Your task to perform on an android device: Open CNN.com Image 0: 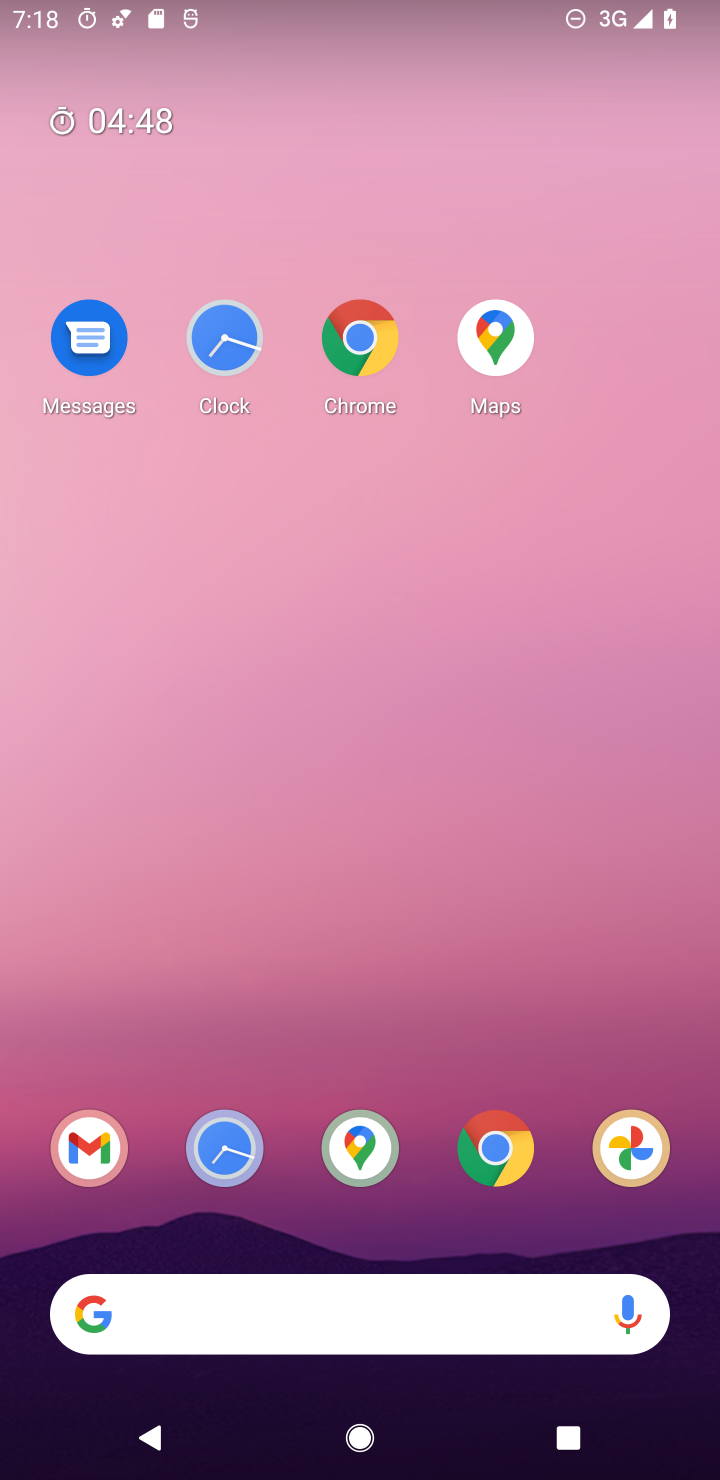
Step 0: drag from (422, 1155) to (499, 249)
Your task to perform on an android device: Open CNN.com Image 1: 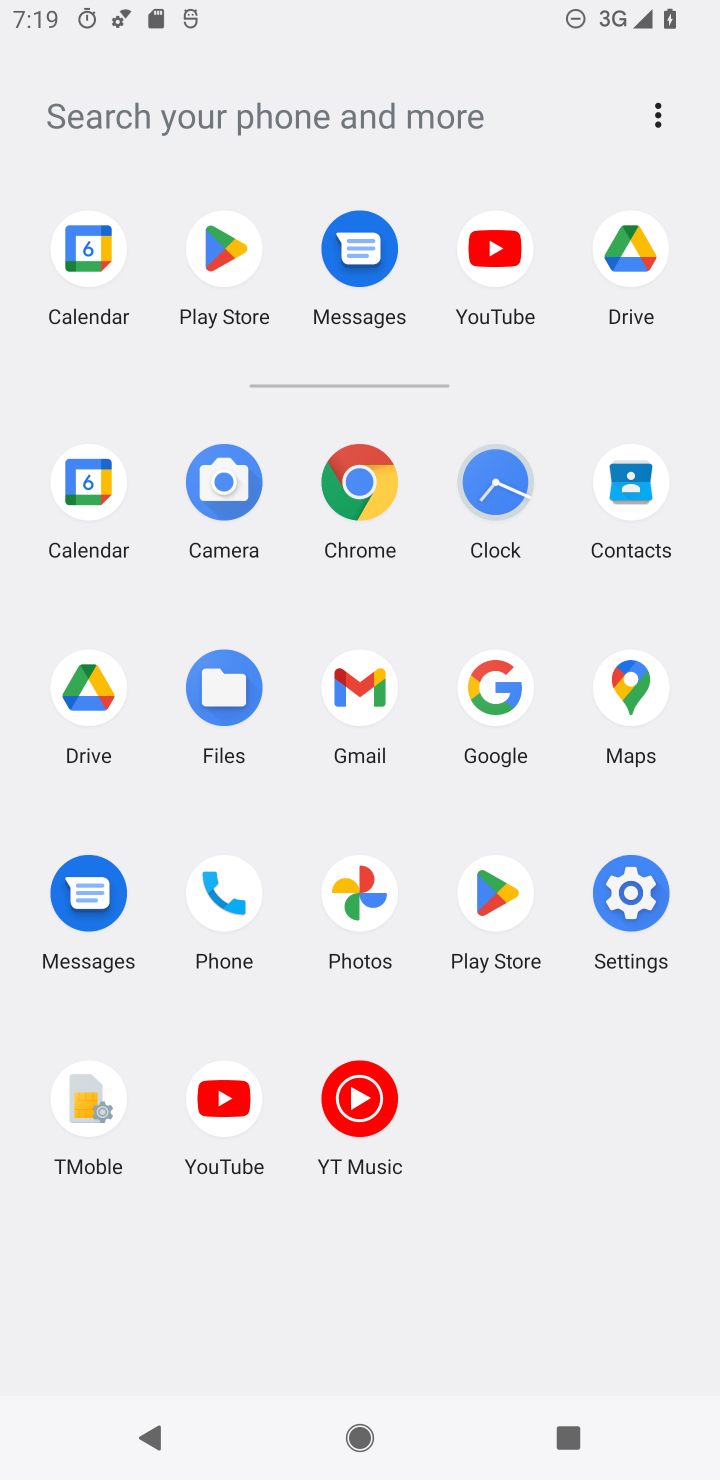
Step 1: click (350, 455)
Your task to perform on an android device: Open CNN.com Image 2: 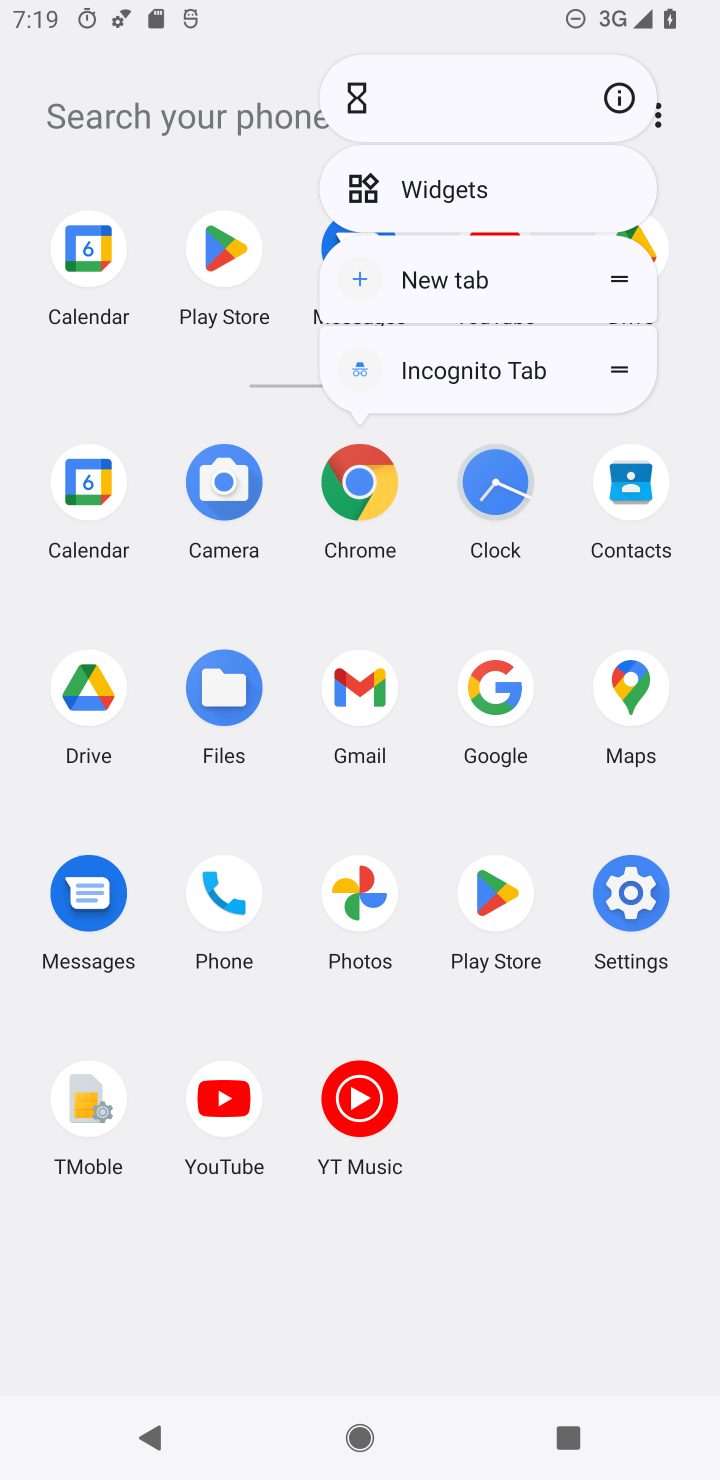
Step 2: click (372, 481)
Your task to perform on an android device: Open CNN.com Image 3: 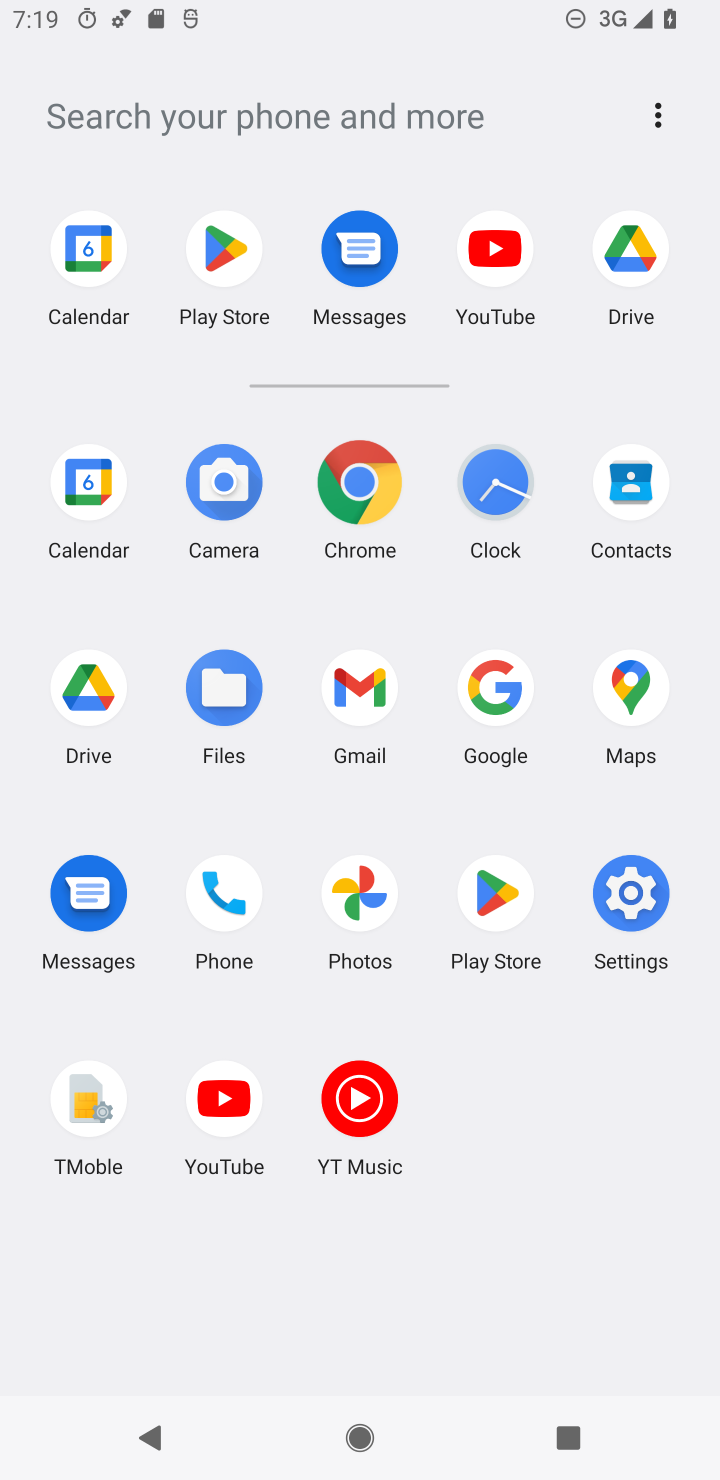
Step 3: click (372, 481)
Your task to perform on an android device: Open CNN.com Image 4: 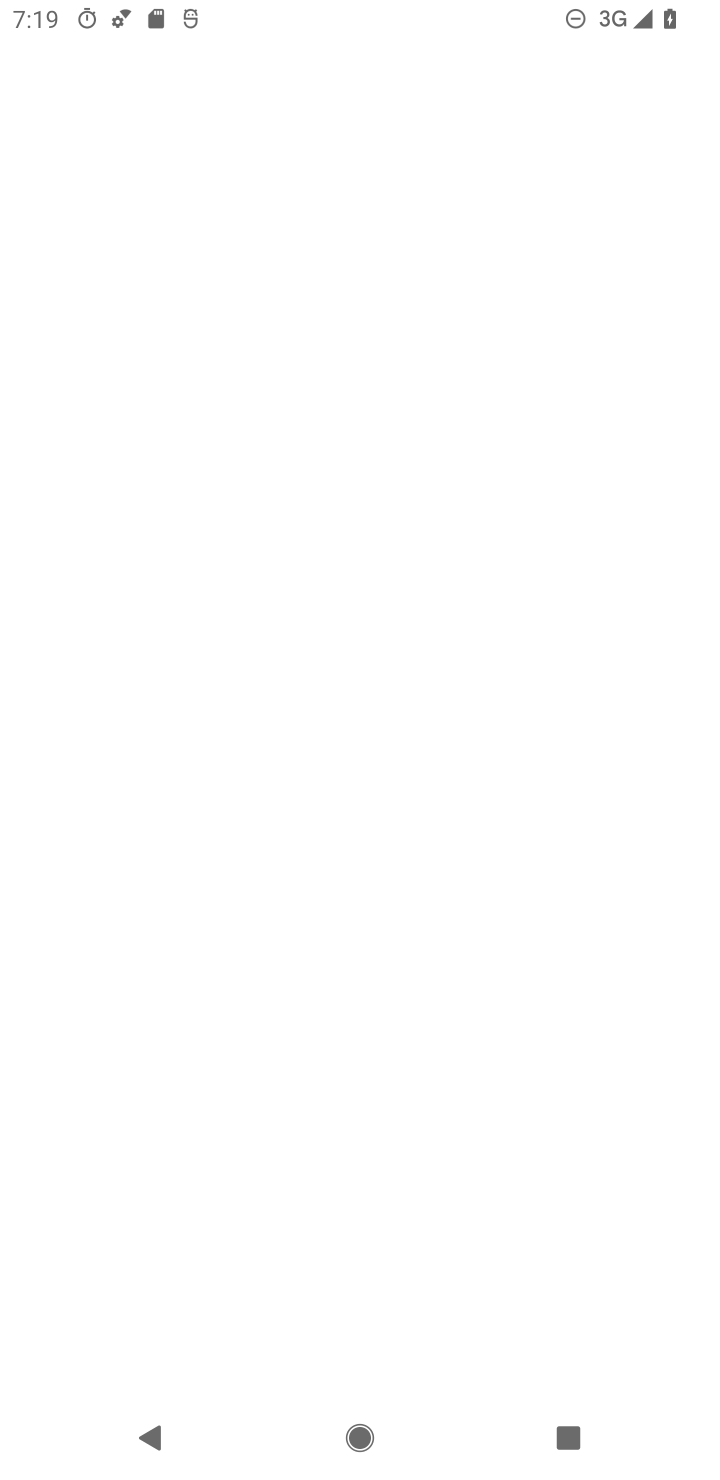
Step 4: click (372, 481)
Your task to perform on an android device: Open CNN.com Image 5: 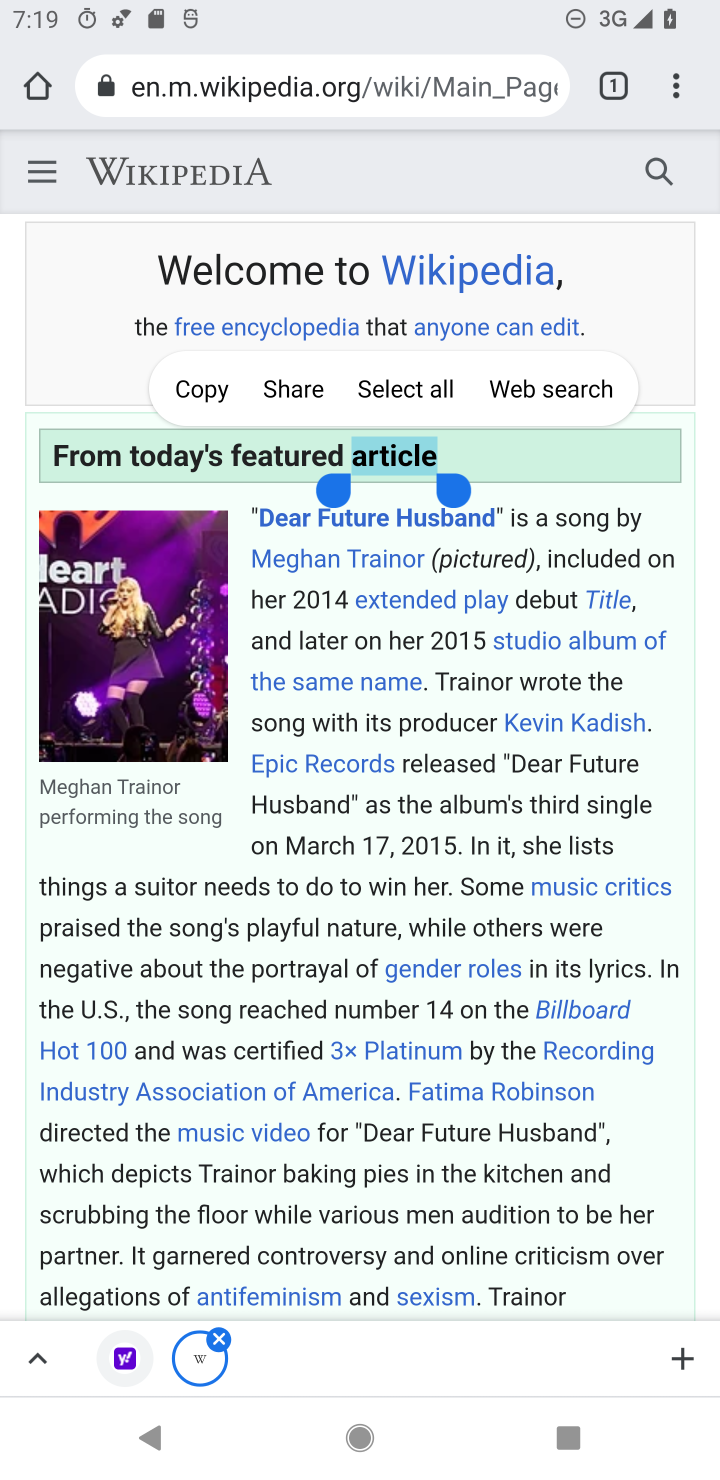
Step 5: drag from (423, 868) to (467, 422)
Your task to perform on an android device: Open CNN.com Image 6: 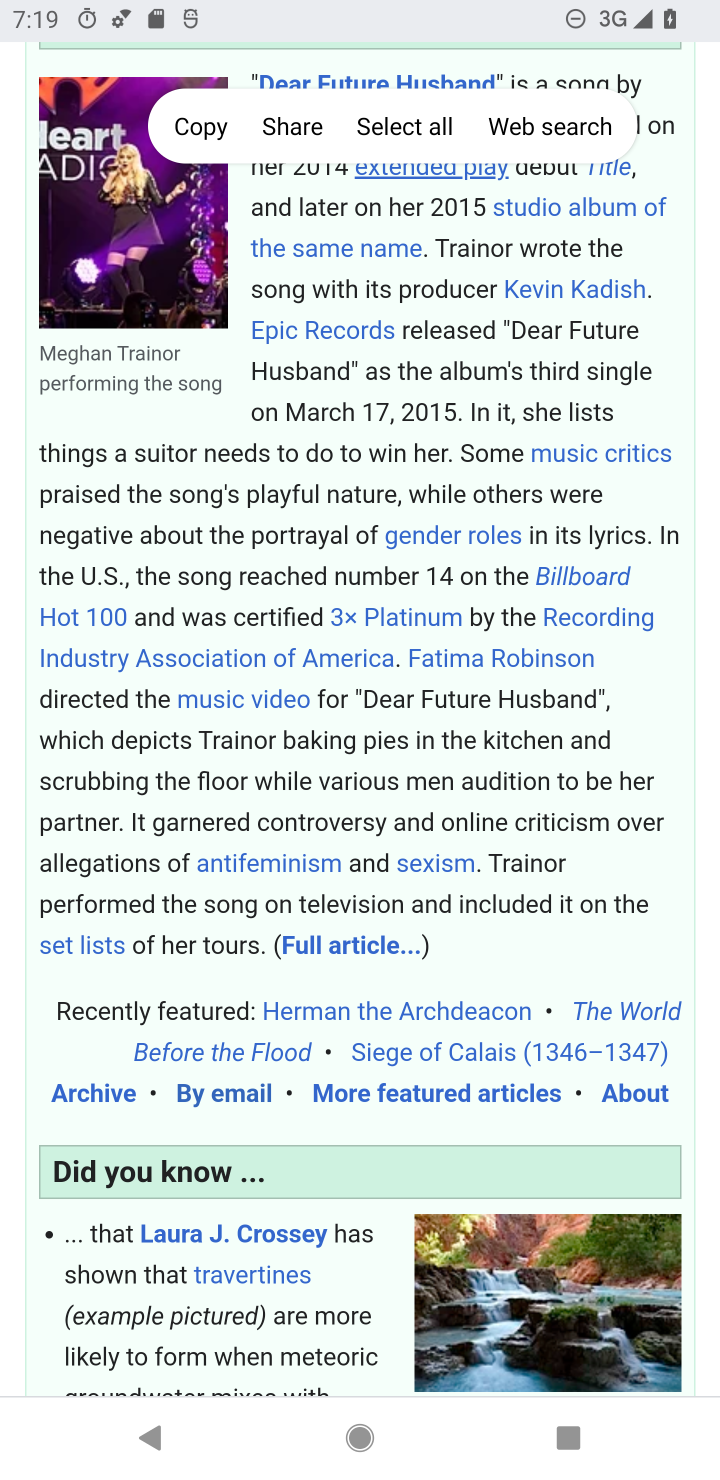
Step 6: drag from (446, 532) to (406, 1373)
Your task to perform on an android device: Open CNN.com Image 7: 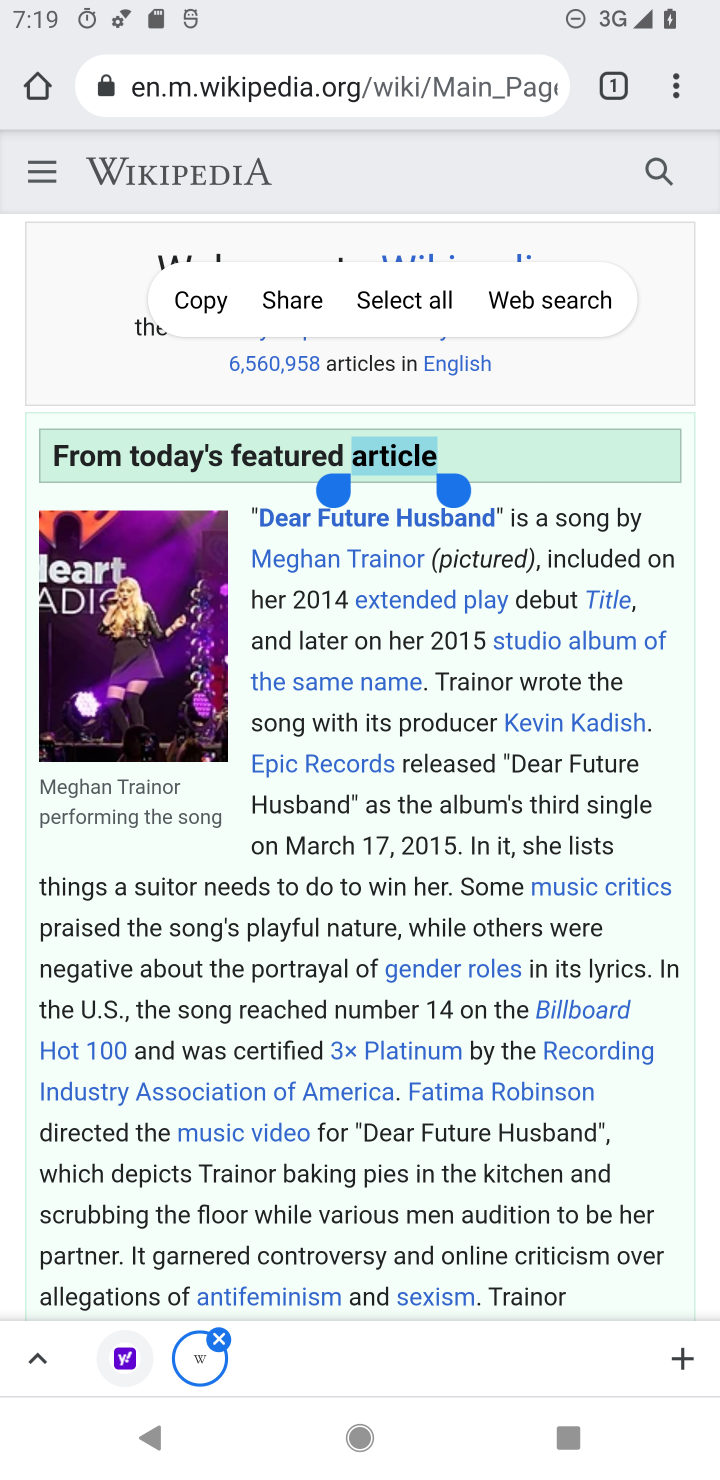
Step 7: click (226, 72)
Your task to perform on an android device: Open CNN.com Image 8: 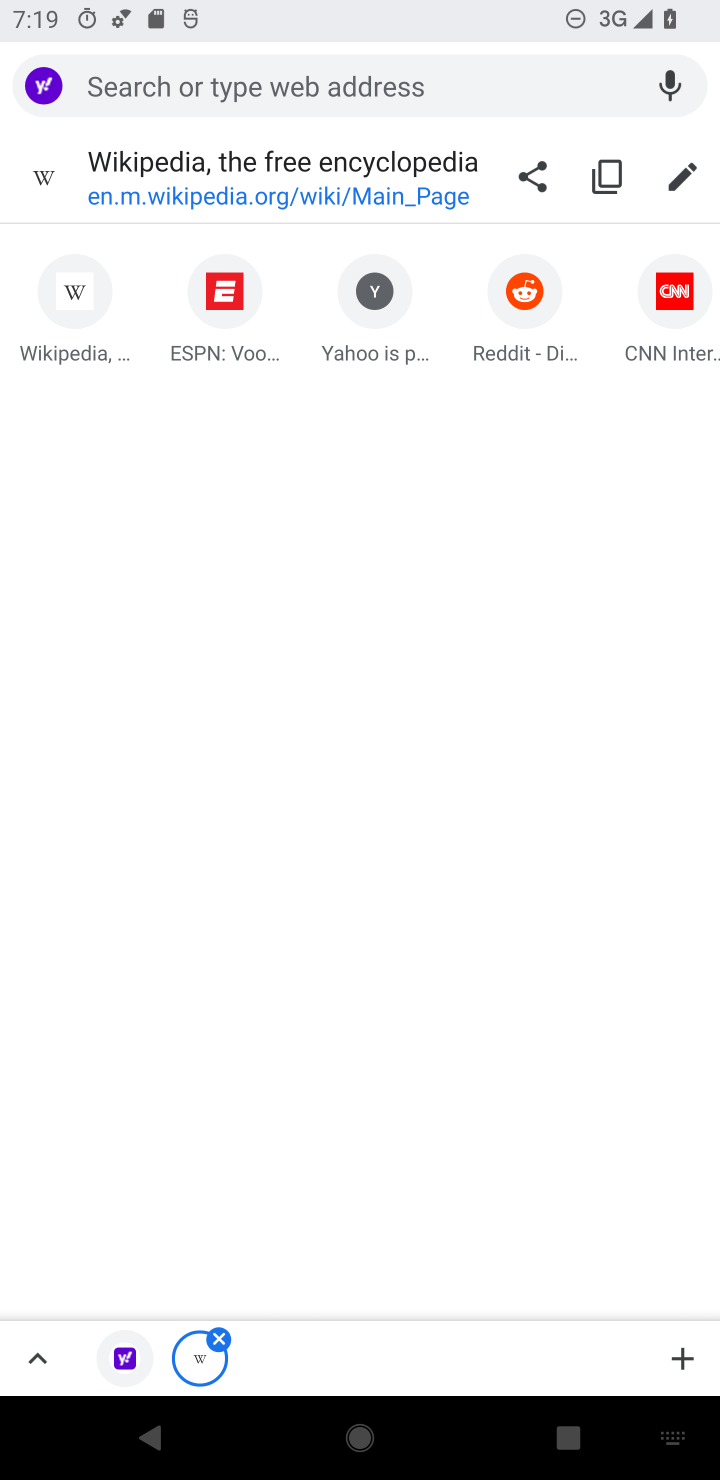
Step 8: type "cnn.com"
Your task to perform on an android device: Open CNN.com Image 9: 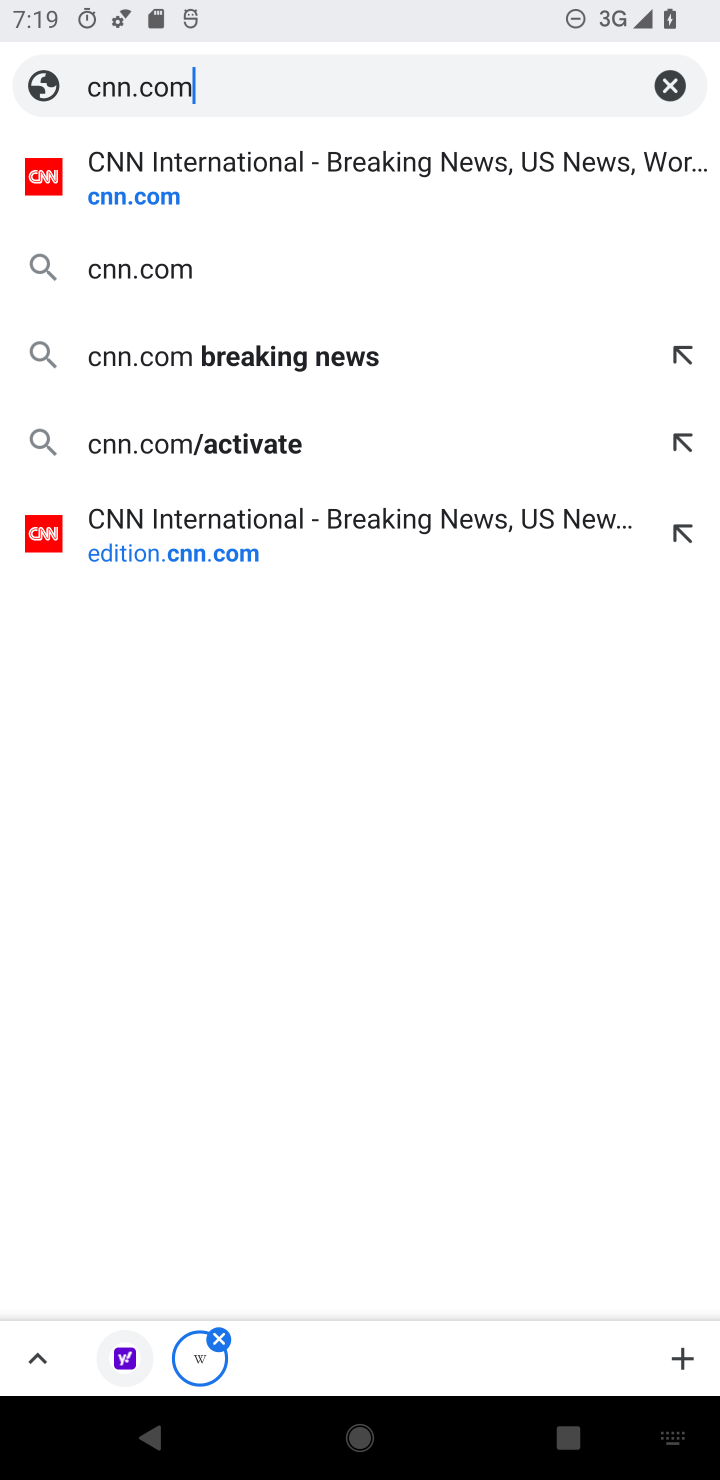
Step 9: click (115, 209)
Your task to perform on an android device: Open CNN.com Image 10: 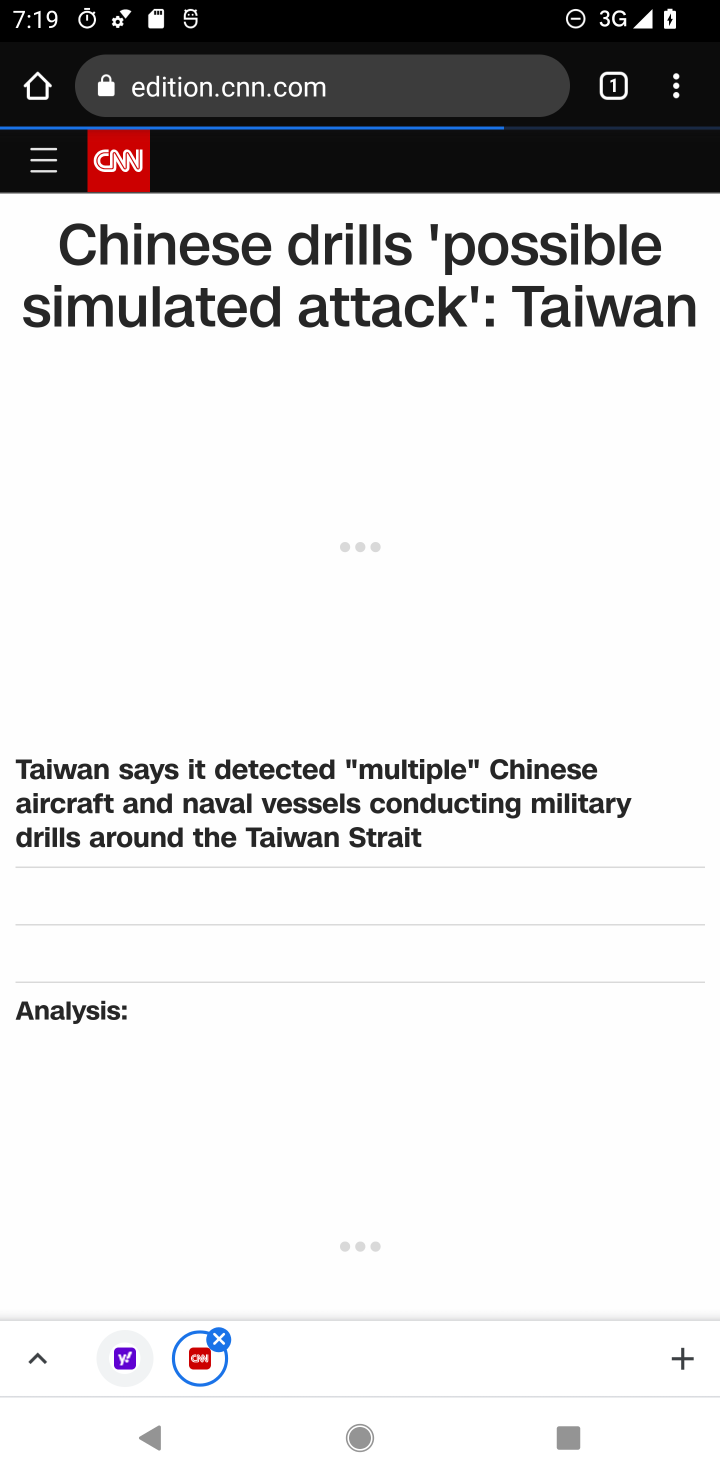
Step 10: task complete